Your task to perform on an android device: uninstall "LiveIn - Share Your Moment" Image 0: 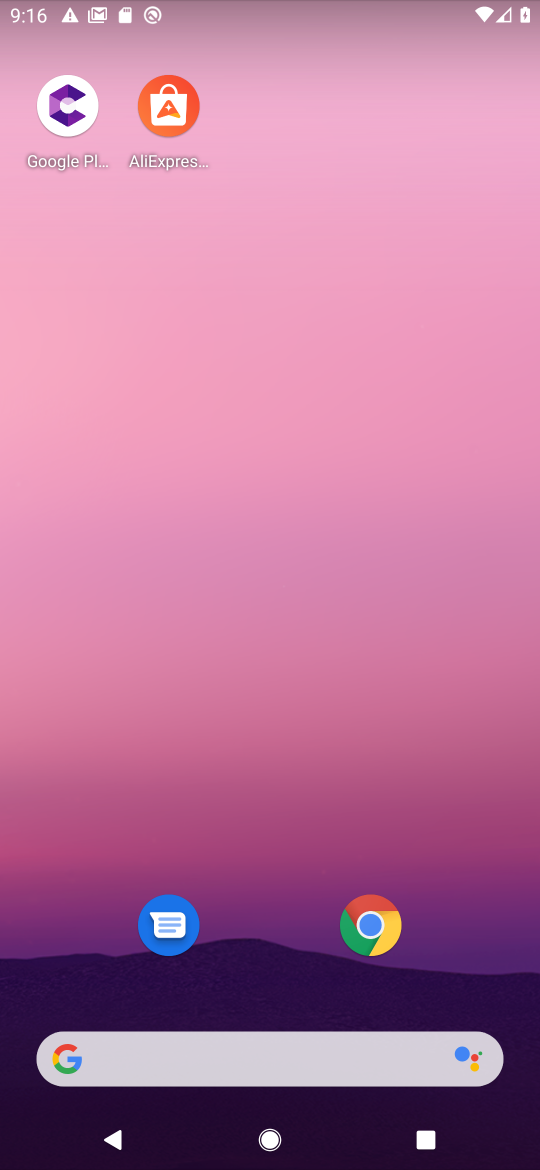
Step 0: drag from (260, 966) to (265, 23)
Your task to perform on an android device: uninstall "LiveIn - Share Your Moment" Image 1: 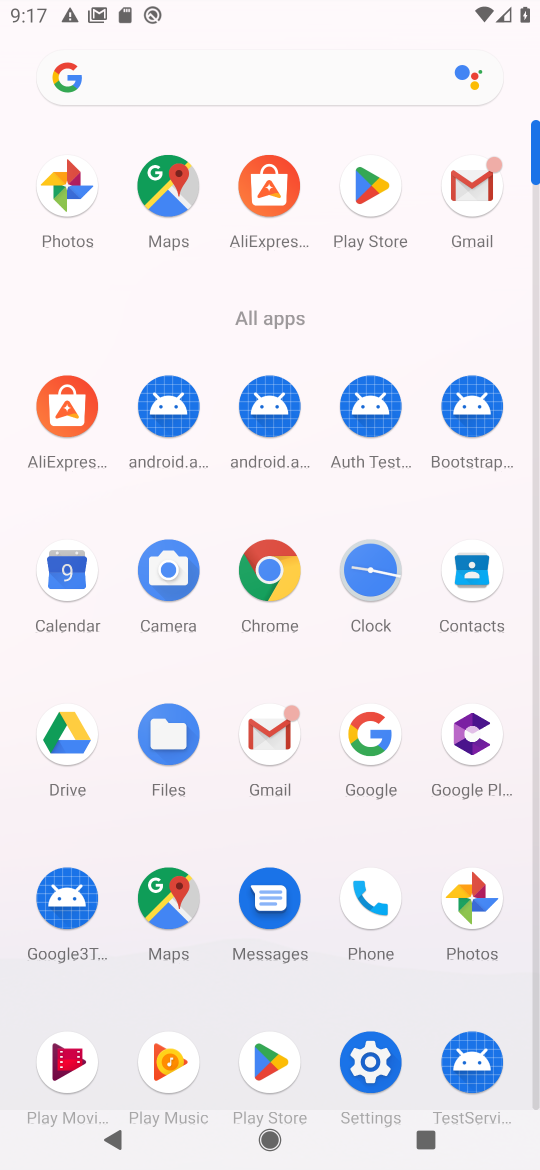
Step 1: click (370, 185)
Your task to perform on an android device: uninstall "LiveIn - Share Your Moment" Image 2: 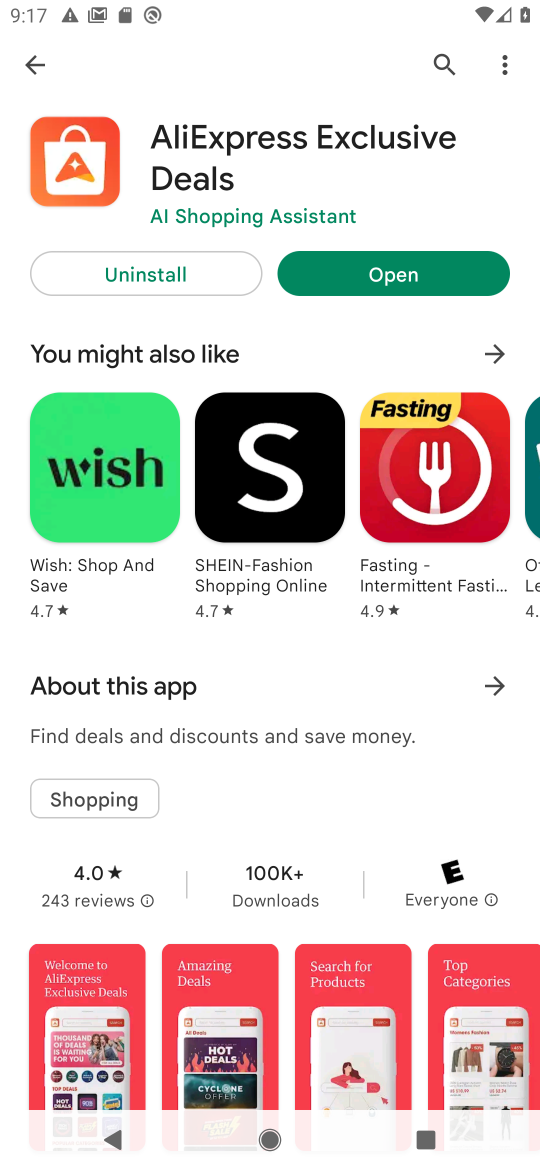
Step 2: click (33, 54)
Your task to perform on an android device: uninstall "LiveIn - Share Your Moment" Image 3: 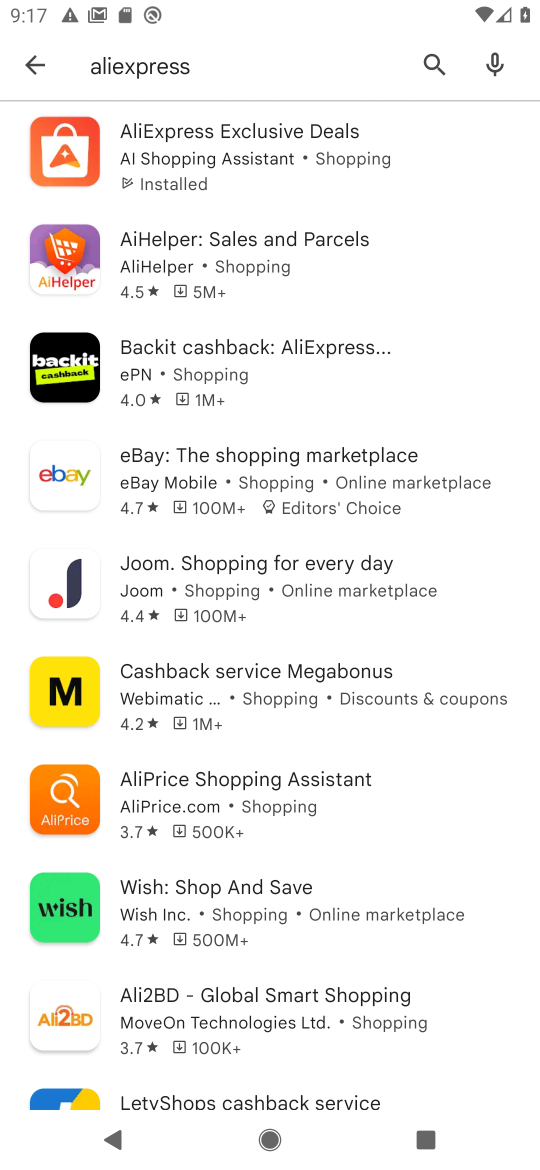
Step 3: click (40, 68)
Your task to perform on an android device: uninstall "LiveIn - Share Your Moment" Image 4: 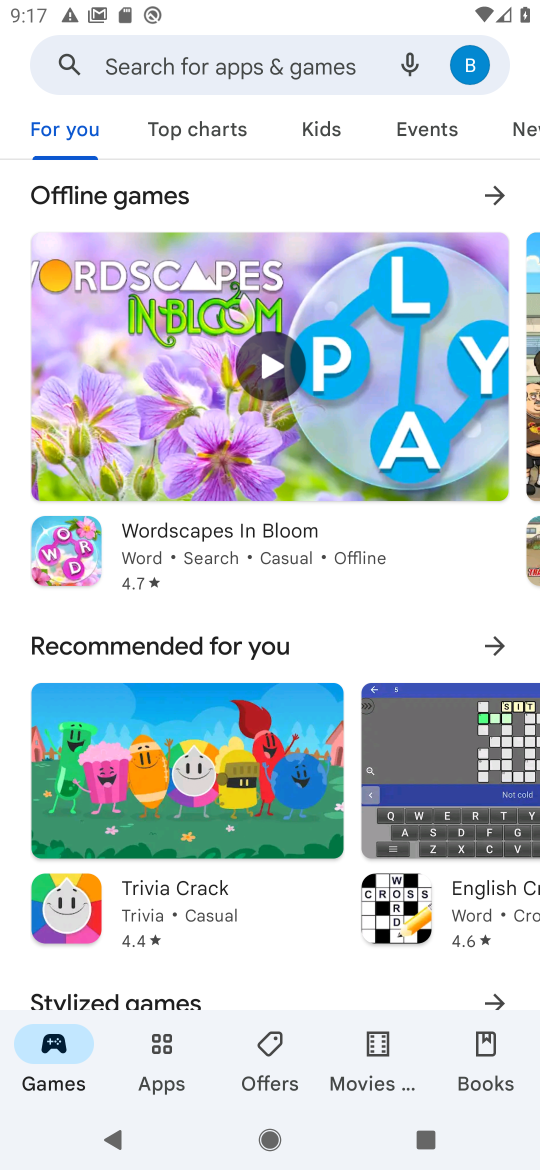
Step 4: click (243, 66)
Your task to perform on an android device: uninstall "LiveIn - Share Your Moment" Image 5: 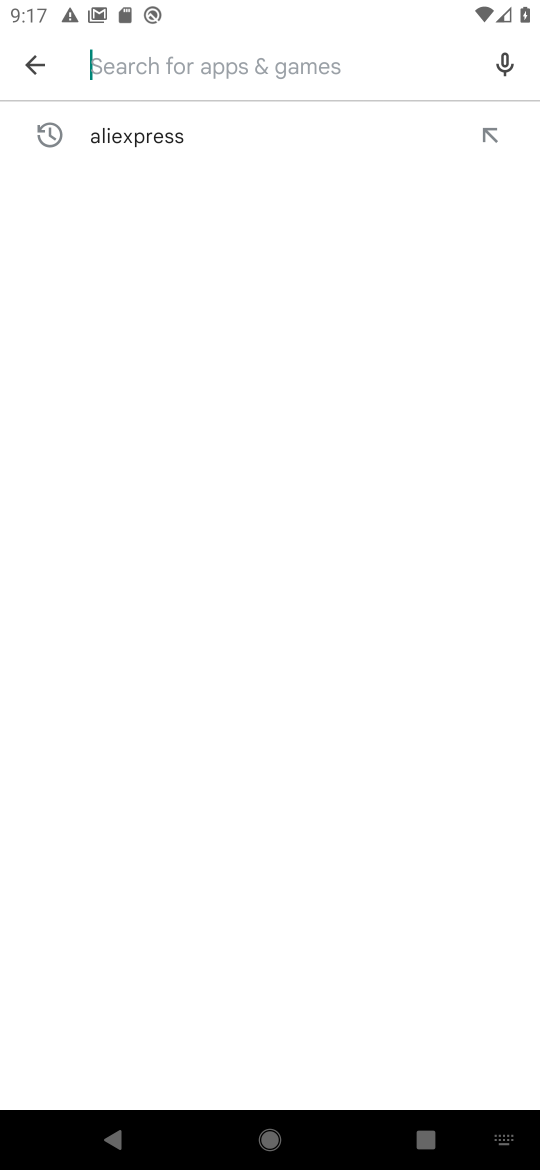
Step 5: type "LiveIn"
Your task to perform on an android device: uninstall "LiveIn - Share Your Moment" Image 6: 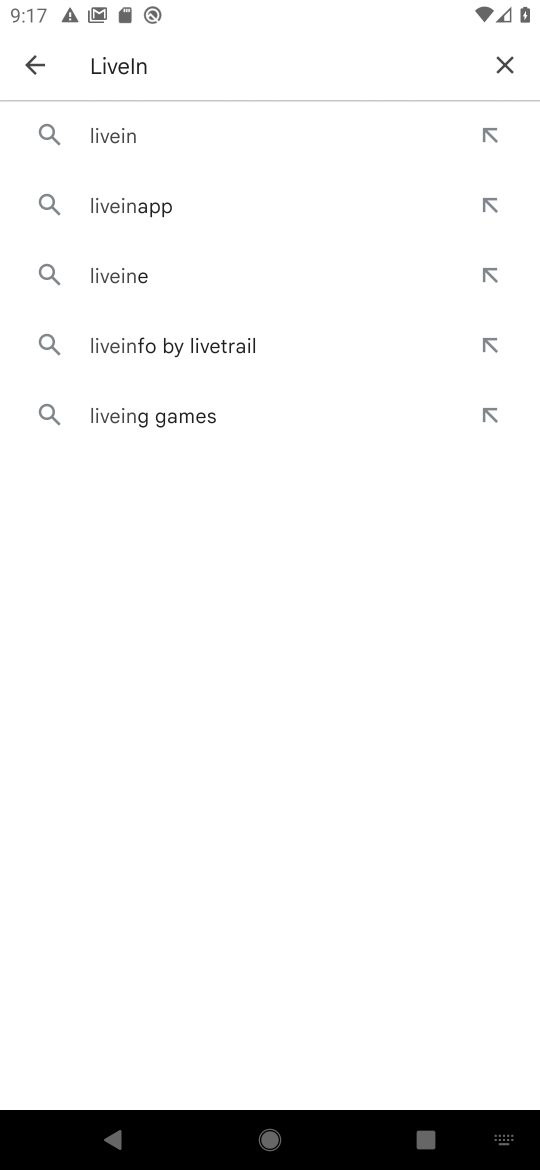
Step 6: click (103, 144)
Your task to perform on an android device: uninstall "LiveIn - Share Your Moment" Image 7: 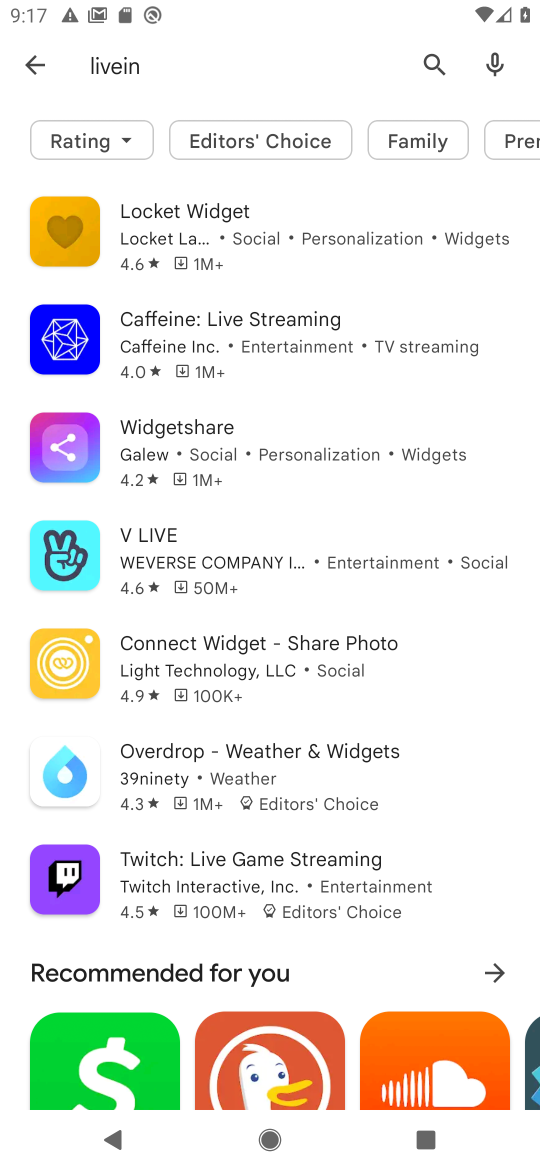
Step 7: task complete